Your task to perform on an android device: Open Yahoo.com Image 0: 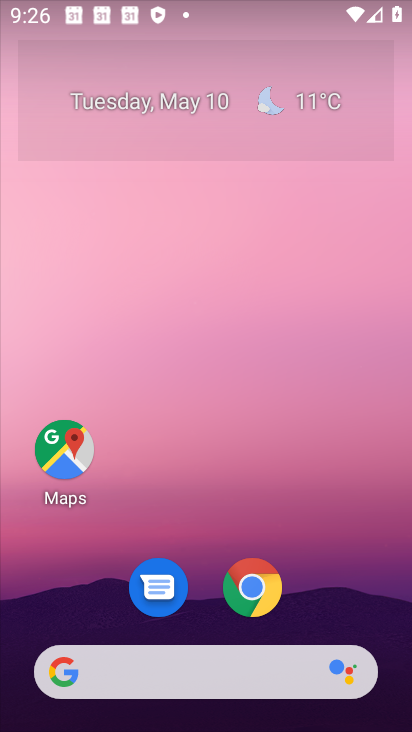
Step 0: drag from (374, 578) to (289, 160)
Your task to perform on an android device: Open Yahoo.com Image 1: 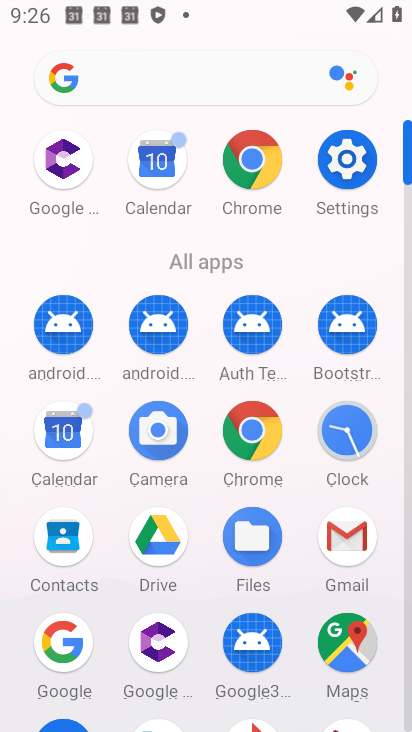
Step 1: click (247, 436)
Your task to perform on an android device: Open Yahoo.com Image 2: 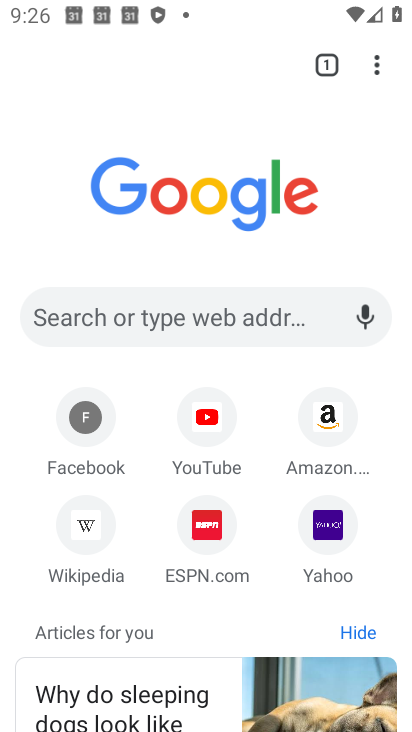
Step 2: click (200, 306)
Your task to perform on an android device: Open Yahoo.com Image 3: 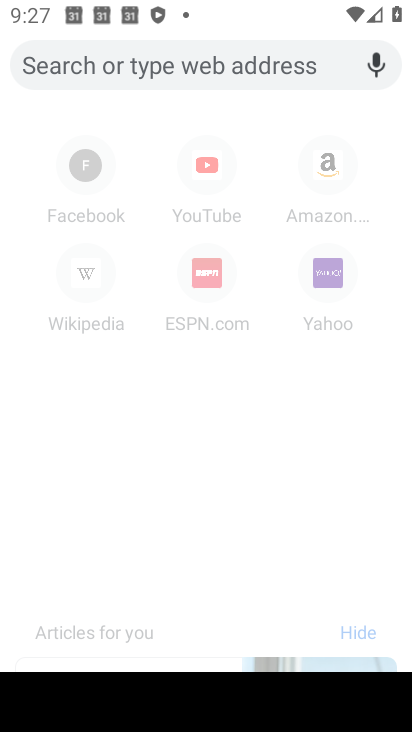
Step 3: type "yahoo.com"
Your task to perform on an android device: Open Yahoo.com Image 4: 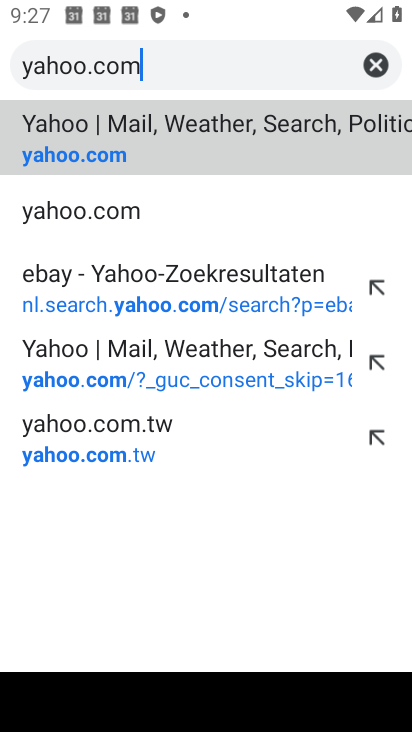
Step 4: click (77, 146)
Your task to perform on an android device: Open Yahoo.com Image 5: 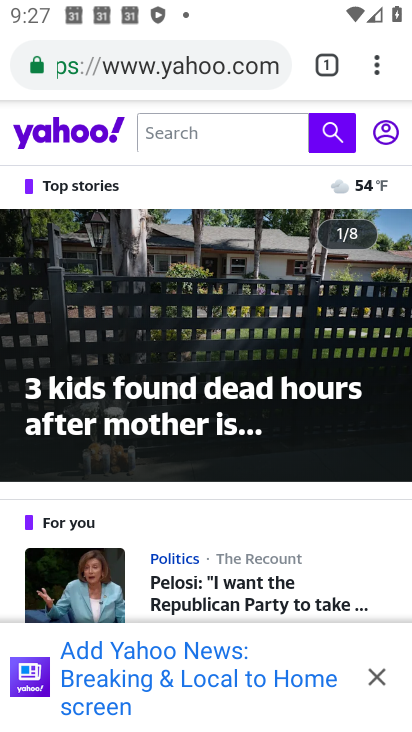
Step 5: click (382, 679)
Your task to perform on an android device: Open Yahoo.com Image 6: 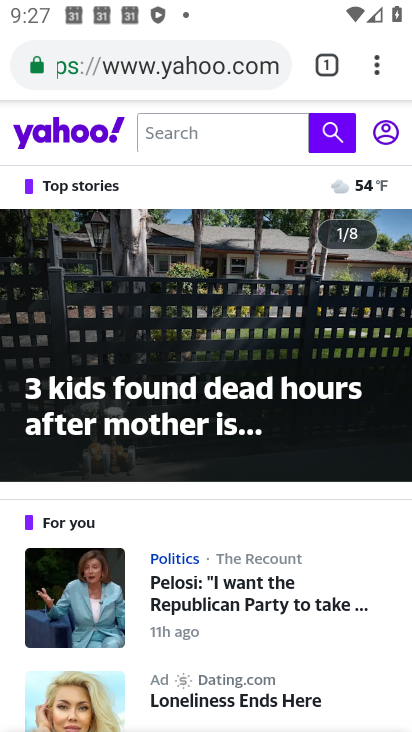
Step 6: task complete